Your task to perform on an android device: Open display settings Image 0: 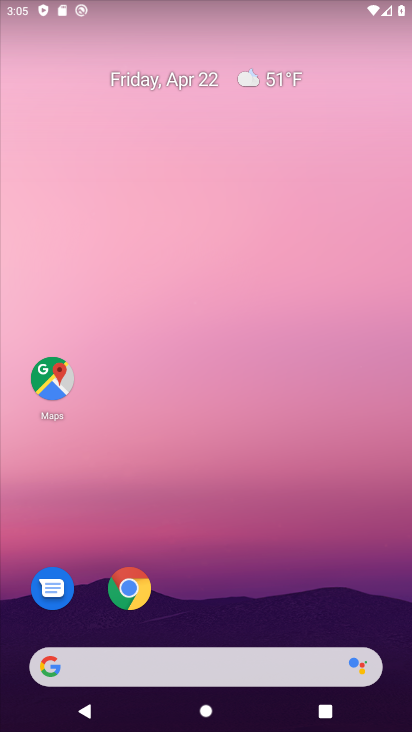
Step 0: drag from (360, 574) to (403, 78)
Your task to perform on an android device: Open display settings Image 1: 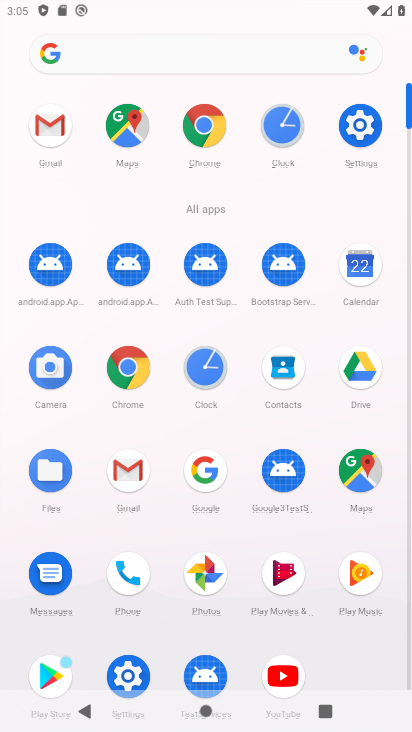
Step 1: click (361, 132)
Your task to perform on an android device: Open display settings Image 2: 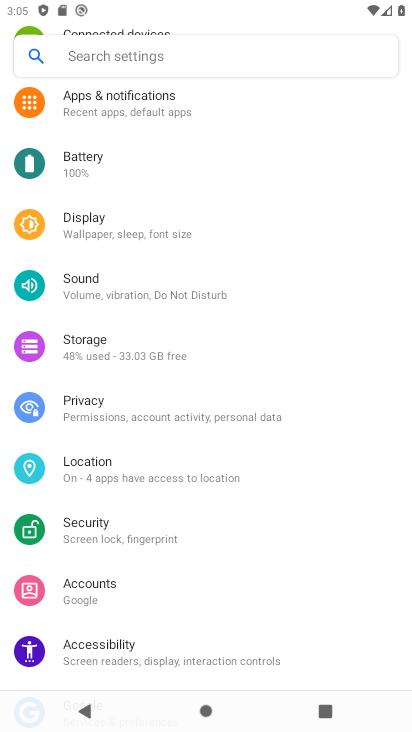
Step 2: drag from (342, 320) to (338, 496)
Your task to perform on an android device: Open display settings Image 3: 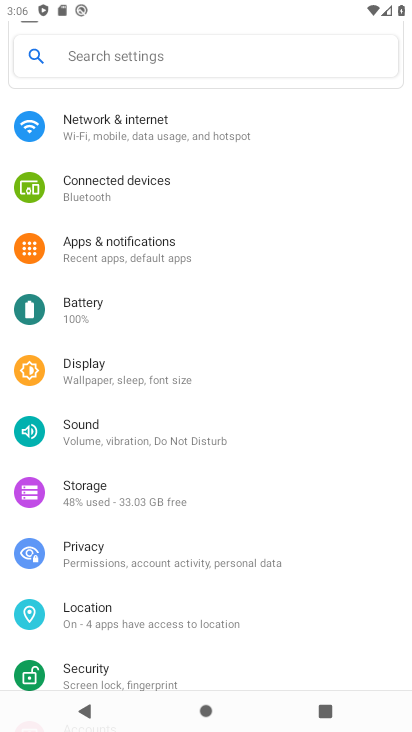
Step 3: drag from (334, 292) to (331, 453)
Your task to perform on an android device: Open display settings Image 4: 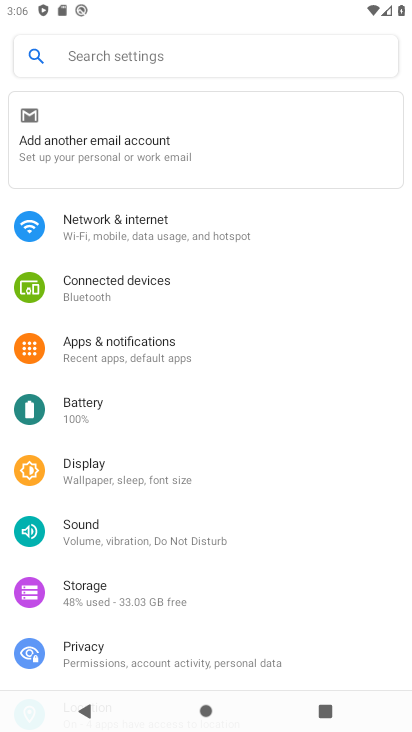
Step 4: drag from (326, 259) to (338, 453)
Your task to perform on an android device: Open display settings Image 5: 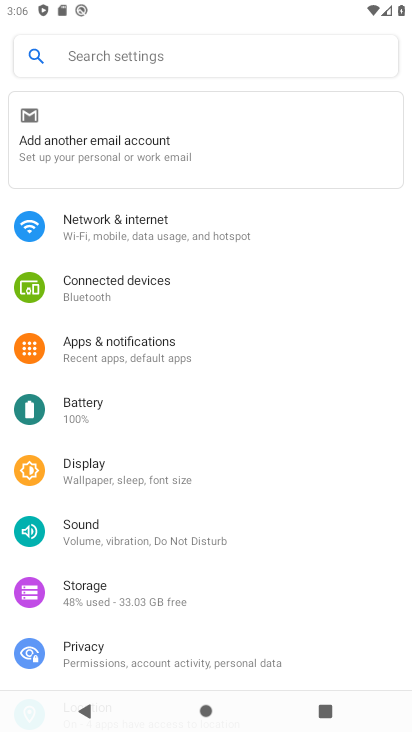
Step 5: drag from (335, 532) to (340, 353)
Your task to perform on an android device: Open display settings Image 6: 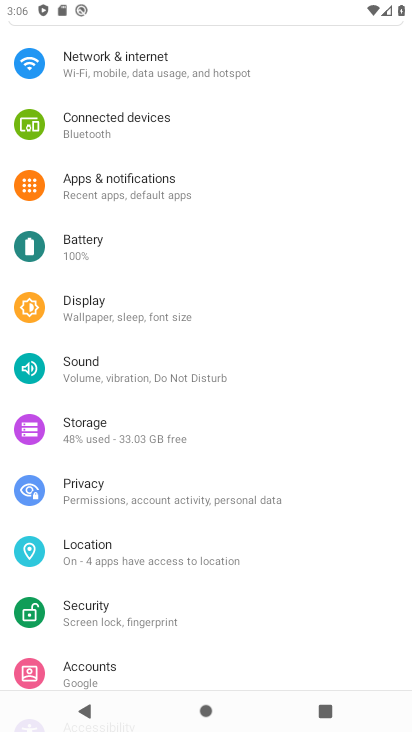
Step 6: drag from (325, 507) to (349, 386)
Your task to perform on an android device: Open display settings Image 7: 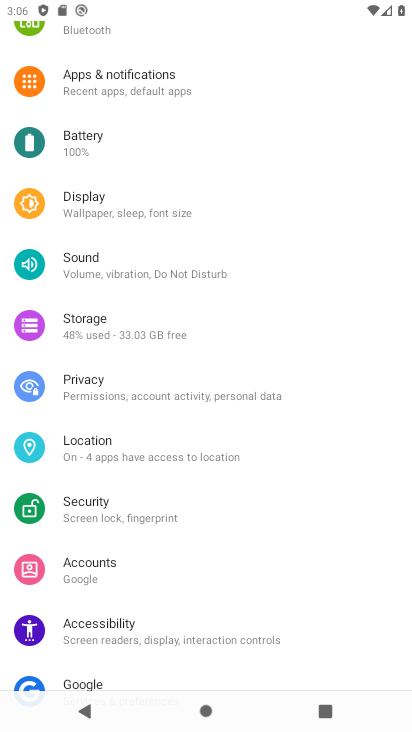
Step 7: click (128, 205)
Your task to perform on an android device: Open display settings Image 8: 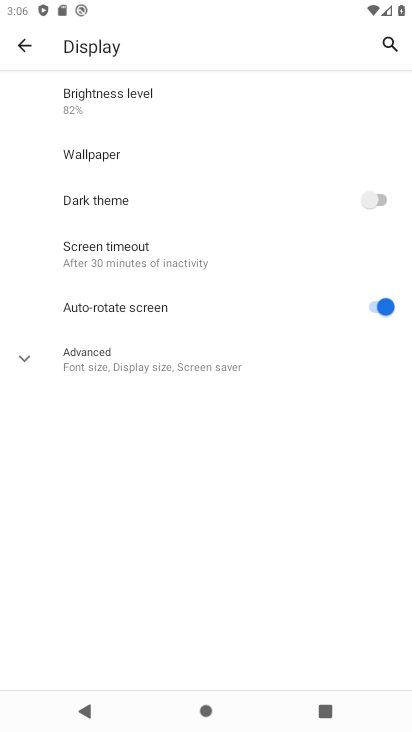
Step 8: click (201, 363)
Your task to perform on an android device: Open display settings Image 9: 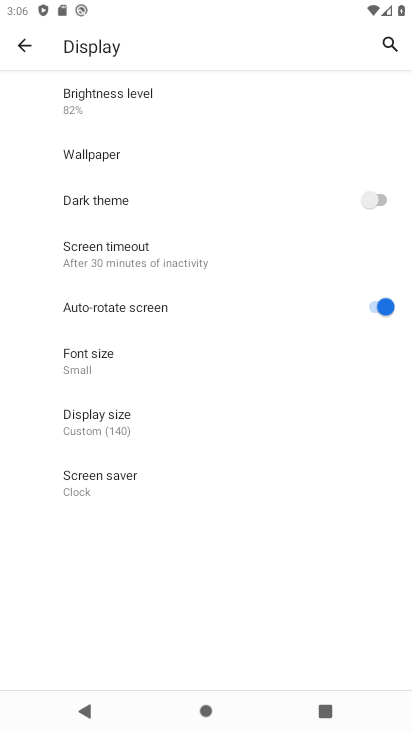
Step 9: task complete